Your task to perform on an android device: turn on wifi Image 0: 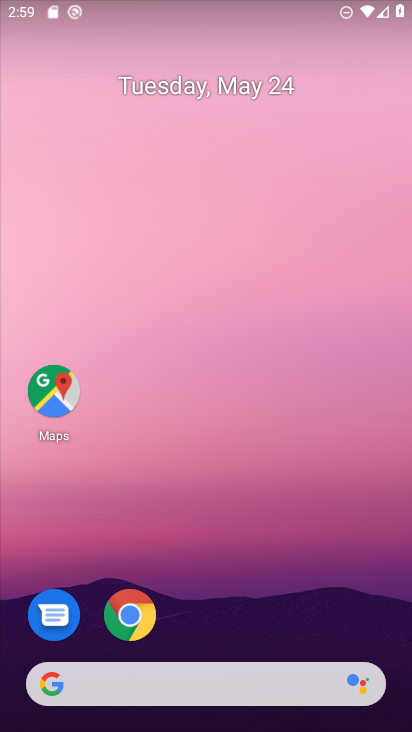
Step 0: drag from (242, 586) to (326, 139)
Your task to perform on an android device: turn on wifi Image 1: 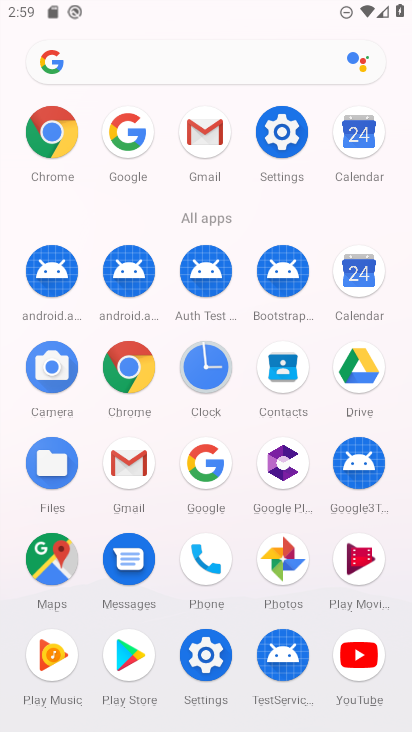
Step 1: click (285, 151)
Your task to perform on an android device: turn on wifi Image 2: 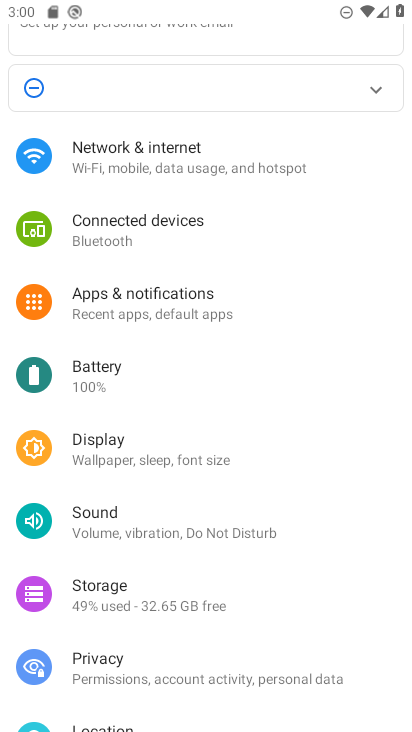
Step 2: click (181, 161)
Your task to perform on an android device: turn on wifi Image 3: 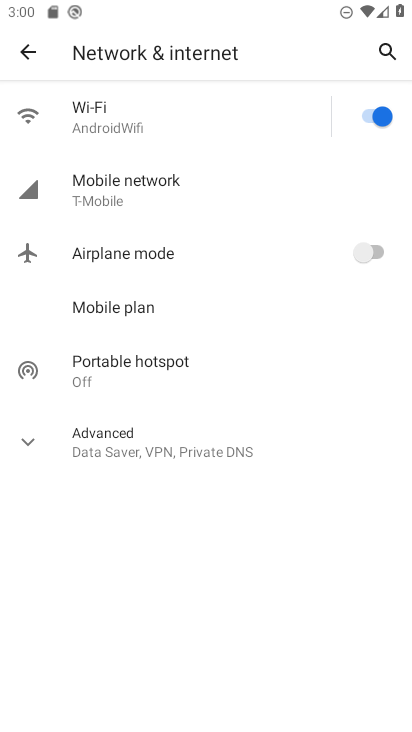
Step 3: click (189, 126)
Your task to perform on an android device: turn on wifi Image 4: 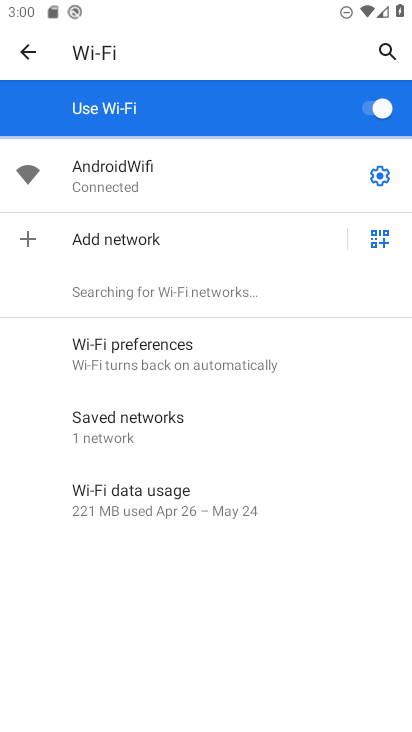
Step 4: task complete